Your task to perform on an android device: turn on airplane mode Image 0: 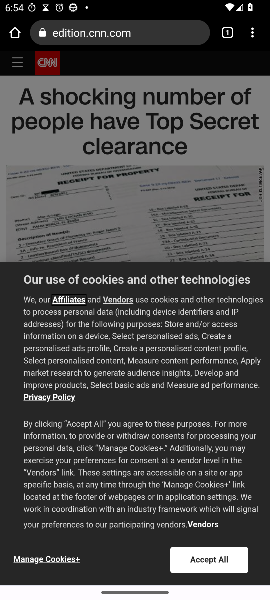
Step 0: press home button
Your task to perform on an android device: turn on airplane mode Image 1: 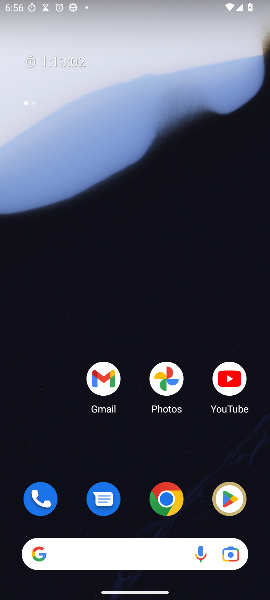
Step 1: drag from (36, 542) to (170, 111)
Your task to perform on an android device: turn on airplane mode Image 2: 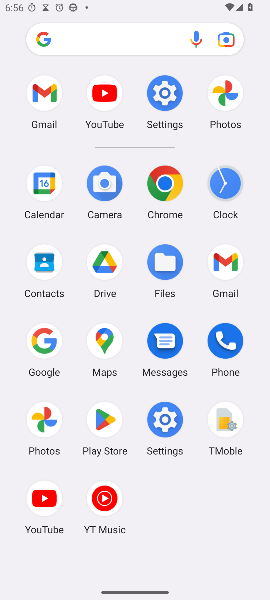
Step 2: click (161, 86)
Your task to perform on an android device: turn on airplane mode Image 3: 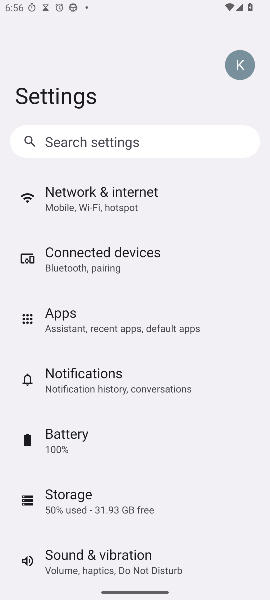
Step 3: click (124, 199)
Your task to perform on an android device: turn on airplane mode Image 4: 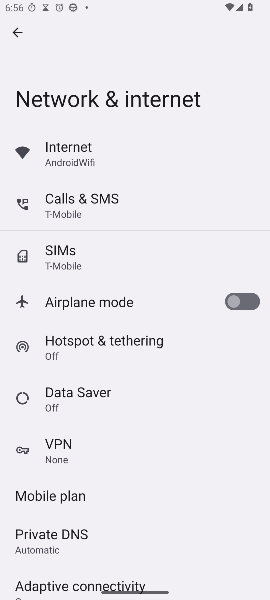
Step 4: click (245, 305)
Your task to perform on an android device: turn on airplane mode Image 5: 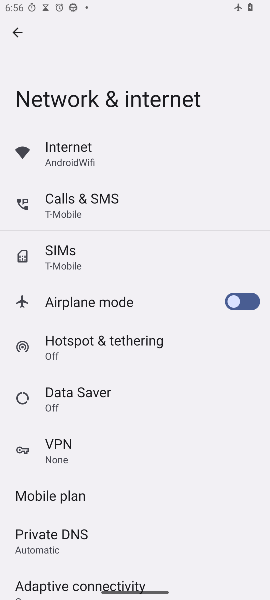
Step 5: task complete